Your task to perform on an android device: What's on my calendar tomorrow? Image 0: 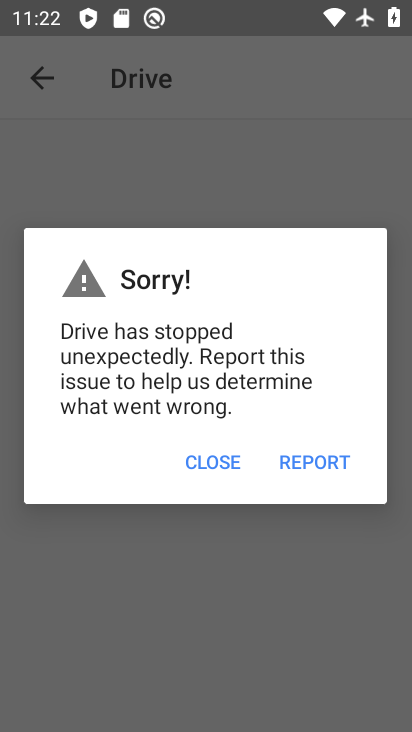
Step 0: press home button
Your task to perform on an android device: What's on my calendar tomorrow? Image 1: 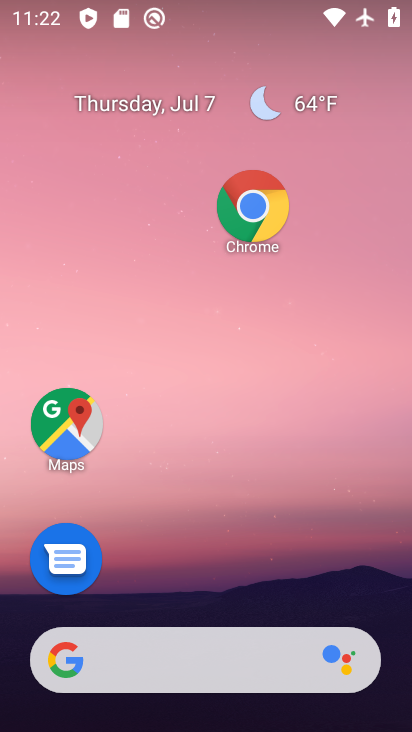
Step 1: drag from (218, 628) to (234, 159)
Your task to perform on an android device: What's on my calendar tomorrow? Image 2: 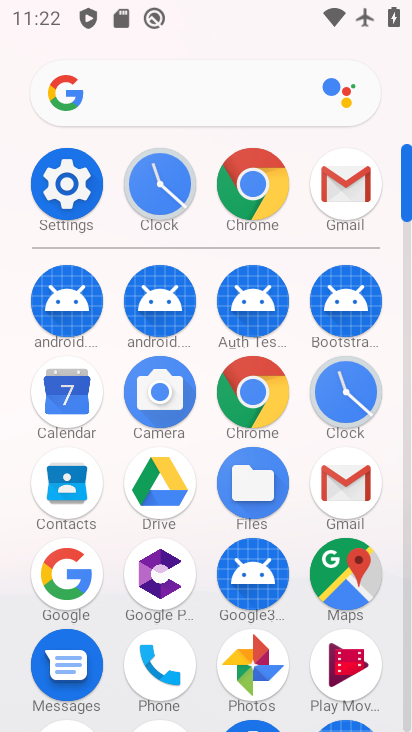
Step 2: click (52, 401)
Your task to perform on an android device: What's on my calendar tomorrow? Image 3: 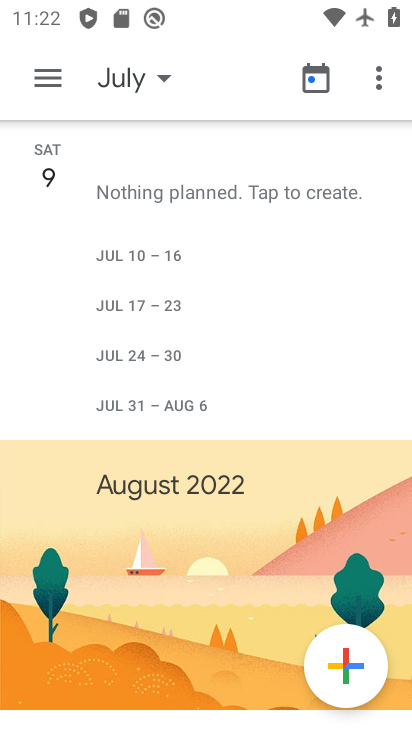
Step 3: click (143, 78)
Your task to perform on an android device: What's on my calendar tomorrow? Image 4: 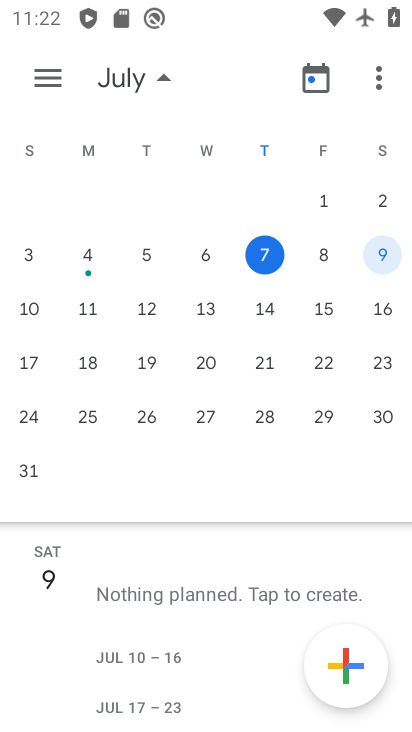
Step 4: click (314, 259)
Your task to perform on an android device: What's on my calendar tomorrow? Image 5: 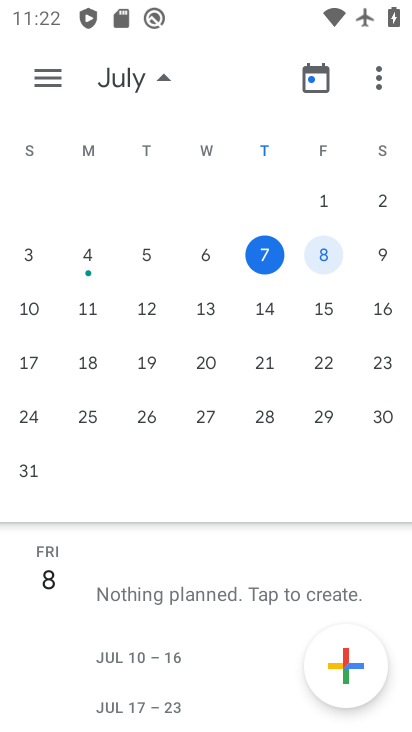
Step 5: task complete